Your task to perform on an android device: turn off javascript in the chrome app Image 0: 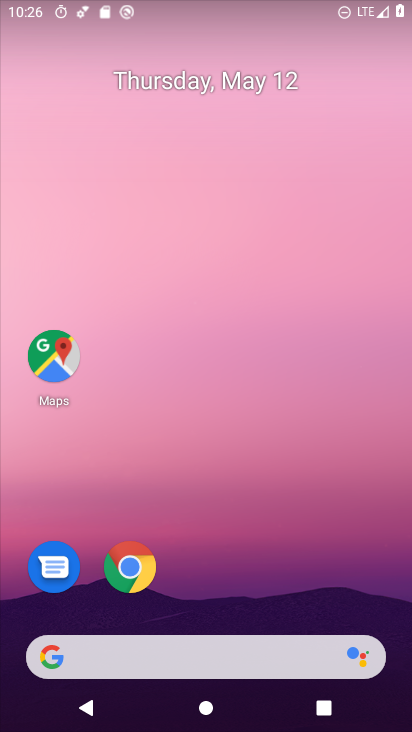
Step 0: drag from (221, 630) to (221, 137)
Your task to perform on an android device: turn off javascript in the chrome app Image 1: 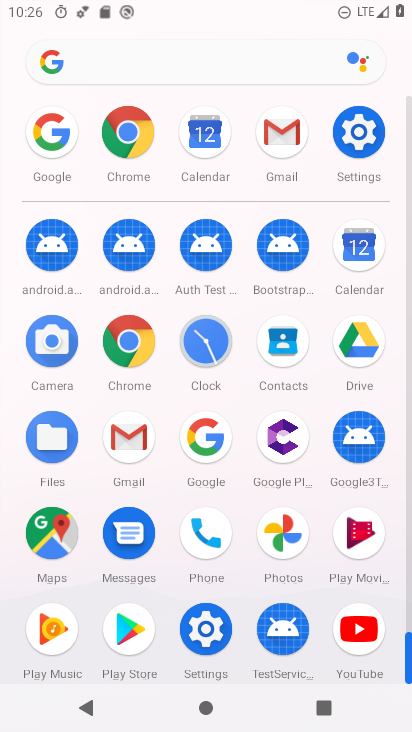
Step 1: drag from (161, 530) to (188, 179)
Your task to perform on an android device: turn off javascript in the chrome app Image 2: 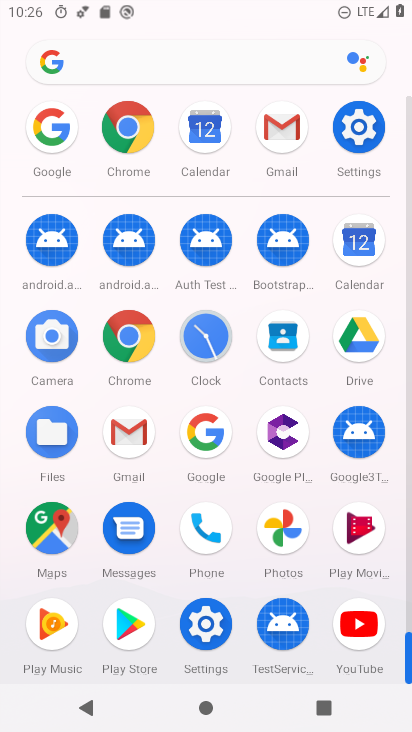
Step 2: click (122, 368)
Your task to perform on an android device: turn off javascript in the chrome app Image 3: 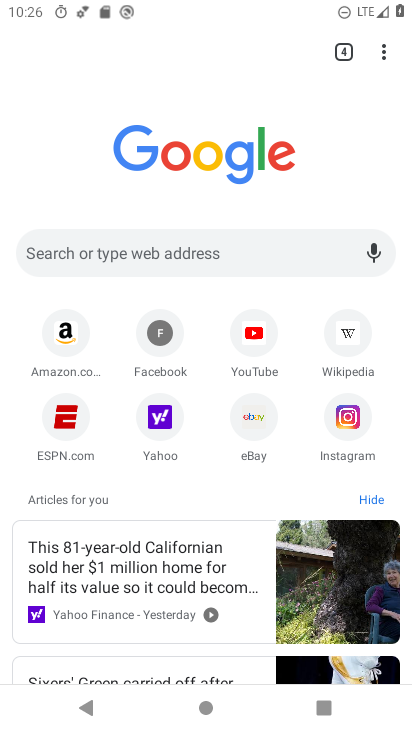
Step 3: click (384, 52)
Your task to perform on an android device: turn off javascript in the chrome app Image 4: 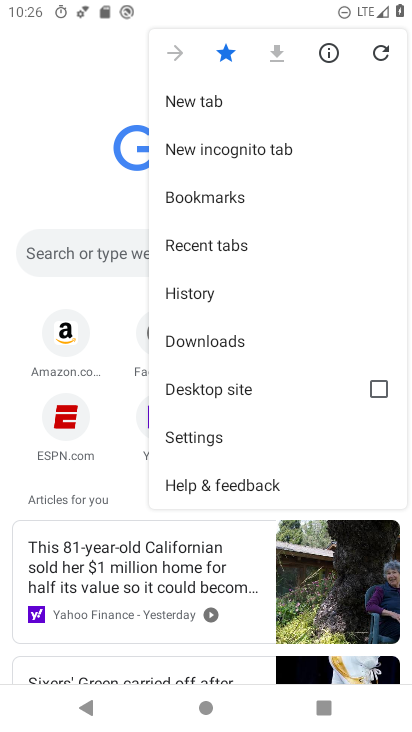
Step 4: click (242, 445)
Your task to perform on an android device: turn off javascript in the chrome app Image 5: 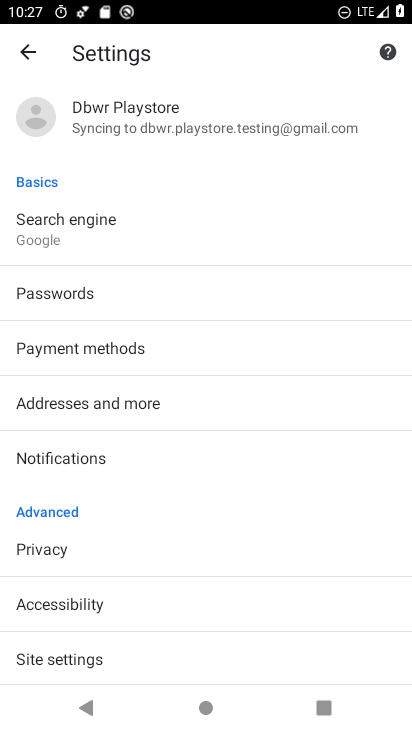
Step 5: drag from (159, 540) to (194, 272)
Your task to perform on an android device: turn off javascript in the chrome app Image 6: 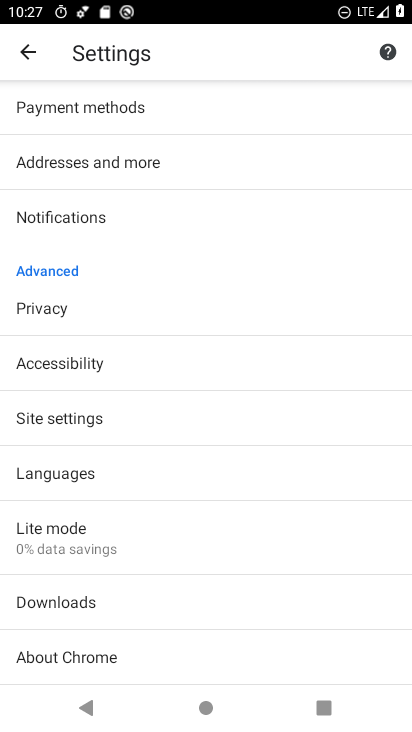
Step 6: click (97, 427)
Your task to perform on an android device: turn off javascript in the chrome app Image 7: 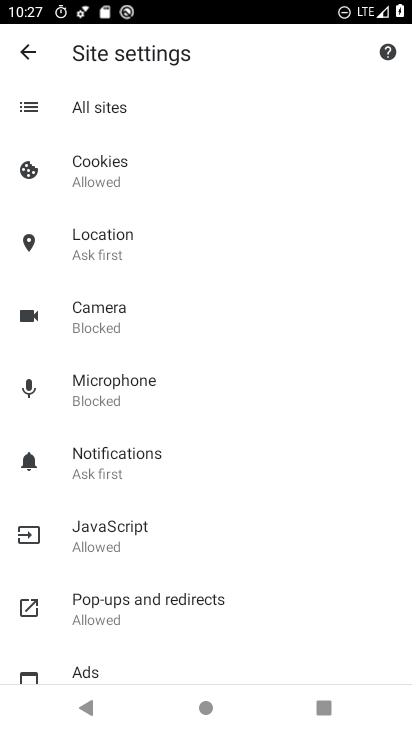
Step 7: click (136, 537)
Your task to perform on an android device: turn off javascript in the chrome app Image 8: 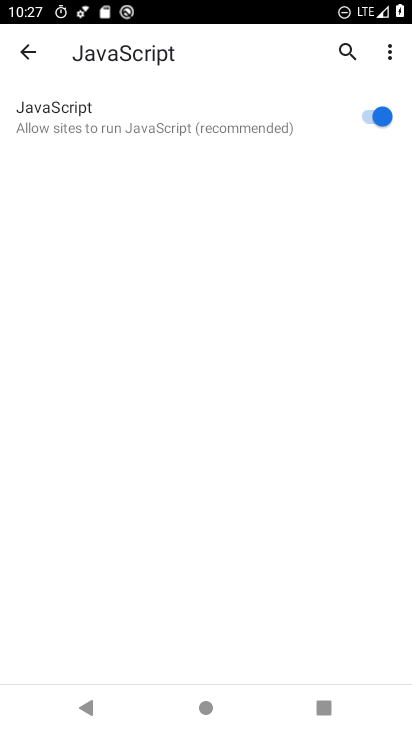
Step 8: click (357, 122)
Your task to perform on an android device: turn off javascript in the chrome app Image 9: 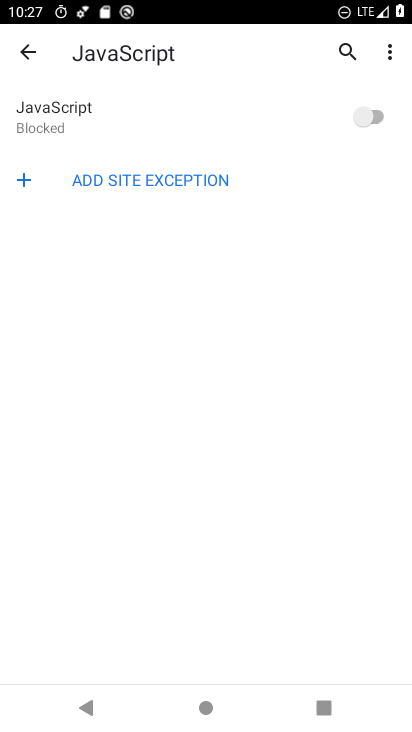
Step 9: task complete